Your task to perform on an android device: turn off wifi Image 0: 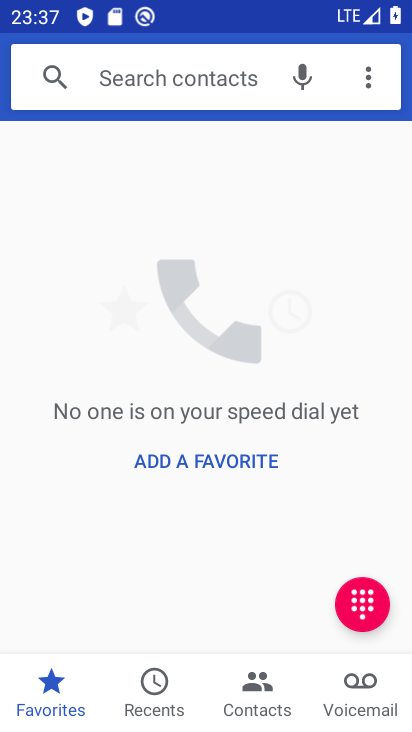
Step 0: press home button
Your task to perform on an android device: turn off wifi Image 1: 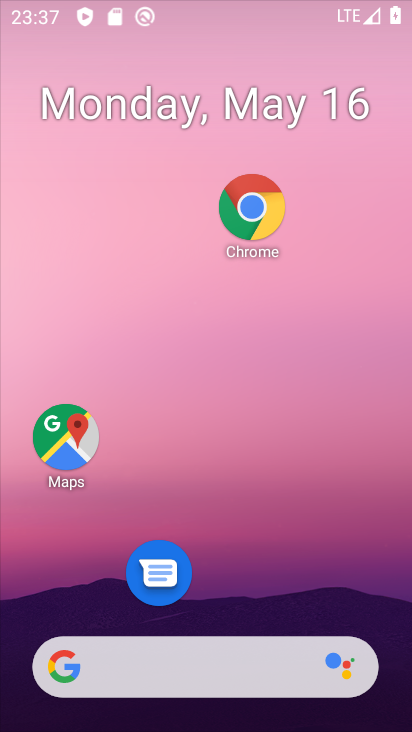
Step 1: drag from (232, 669) to (258, 24)
Your task to perform on an android device: turn off wifi Image 2: 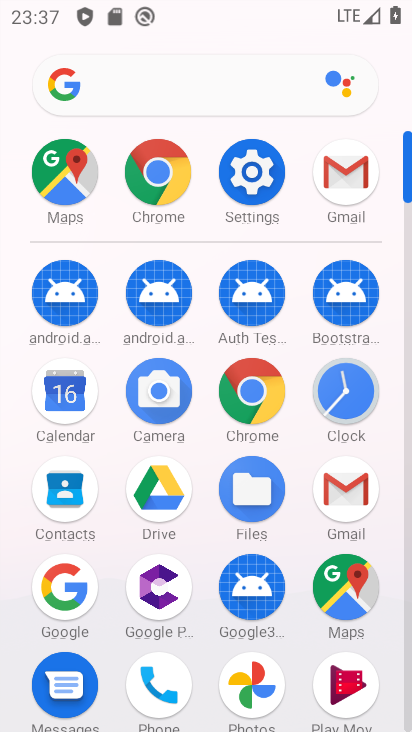
Step 2: click (253, 171)
Your task to perform on an android device: turn off wifi Image 3: 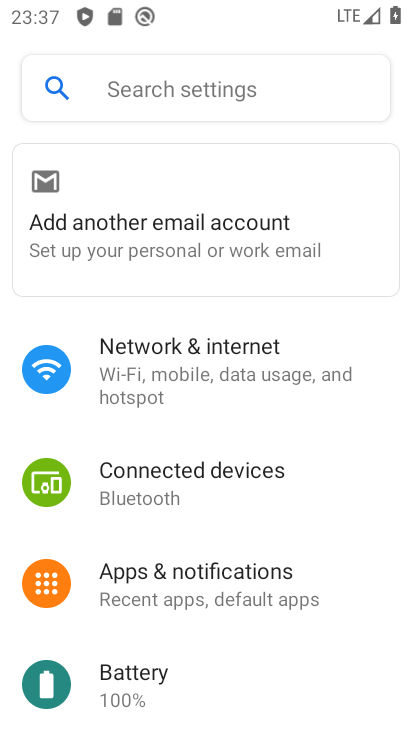
Step 3: click (210, 368)
Your task to perform on an android device: turn off wifi Image 4: 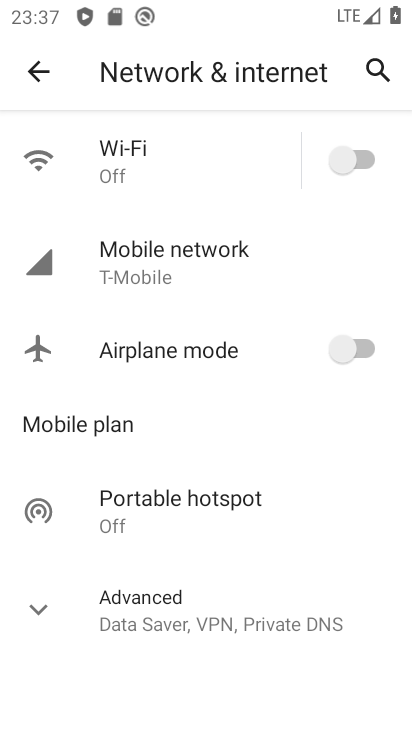
Step 4: task complete